Your task to perform on an android device: open chrome and create a bookmark for the current page Image 0: 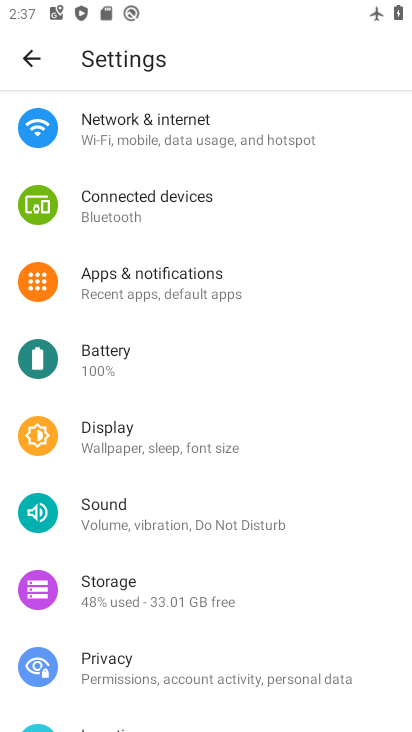
Step 0: press home button
Your task to perform on an android device: open chrome and create a bookmark for the current page Image 1: 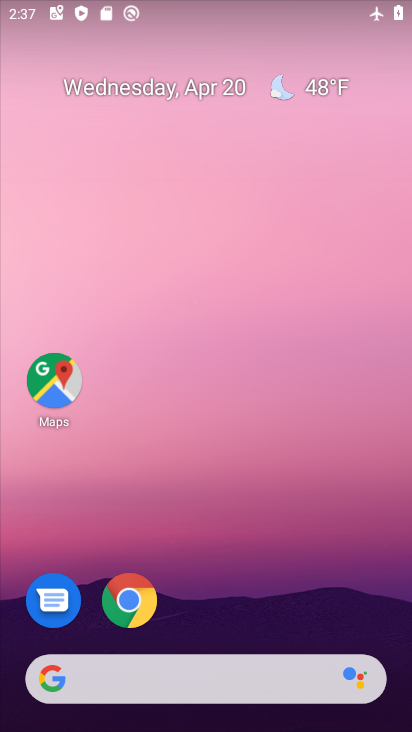
Step 1: drag from (309, 538) to (348, 113)
Your task to perform on an android device: open chrome and create a bookmark for the current page Image 2: 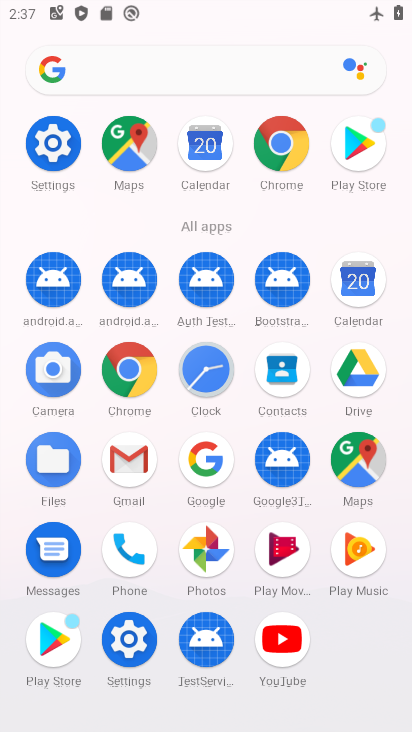
Step 2: click (302, 155)
Your task to perform on an android device: open chrome and create a bookmark for the current page Image 3: 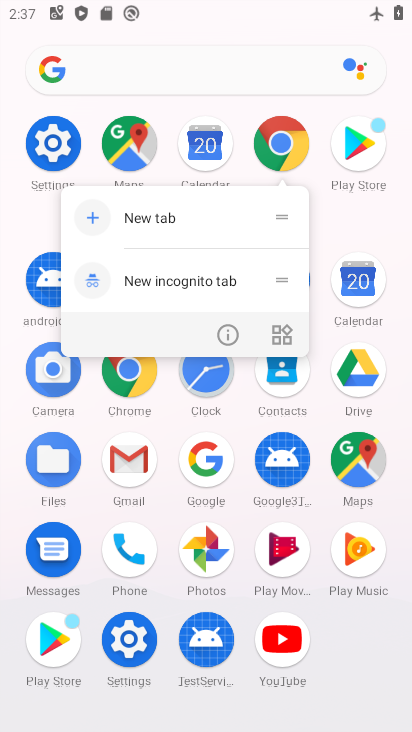
Step 3: click (282, 135)
Your task to perform on an android device: open chrome and create a bookmark for the current page Image 4: 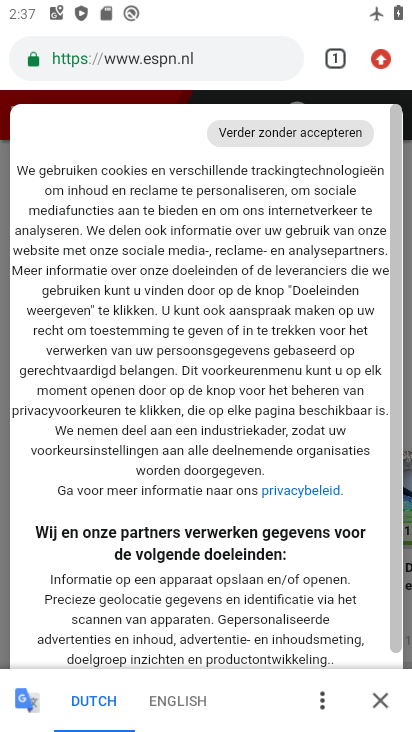
Step 4: click (378, 47)
Your task to perform on an android device: open chrome and create a bookmark for the current page Image 5: 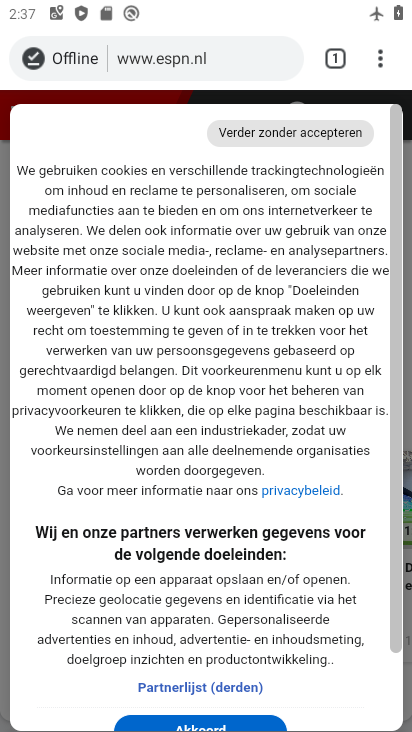
Step 5: task complete